Your task to perform on an android device: turn off priority inbox in the gmail app Image 0: 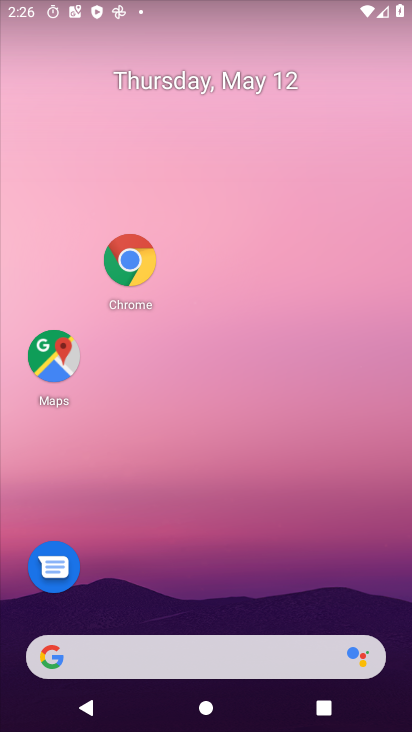
Step 0: drag from (189, 604) to (179, 348)
Your task to perform on an android device: turn off priority inbox in the gmail app Image 1: 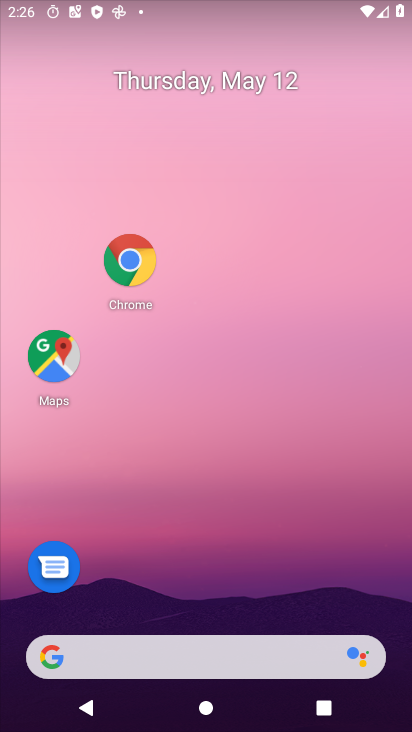
Step 1: drag from (161, 609) to (127, 246)
Your task to perform on an android device: turn off priority inbox in the gmail app Image 2: 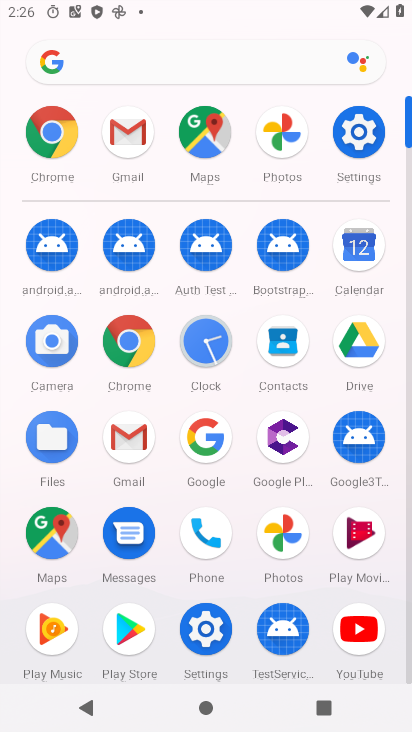
Step 2: click (119, 141)
Your task to perform on an android device: turn off priority inbox in the gmail app Image 3: 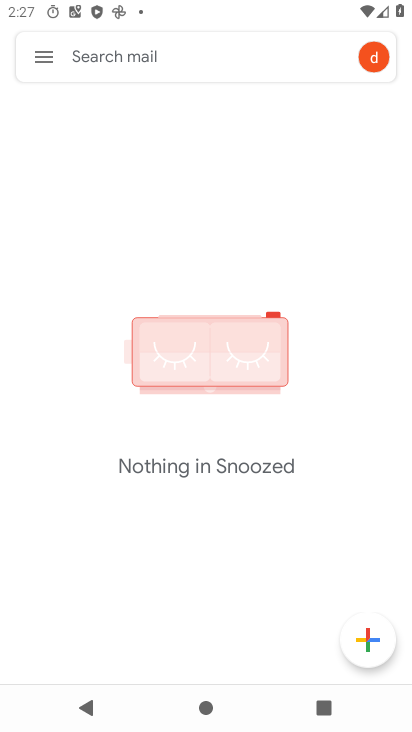
Step 3: click (50, 58)
Your task to perform on an android device: turn off priority inbox in the gmail app Image 4: 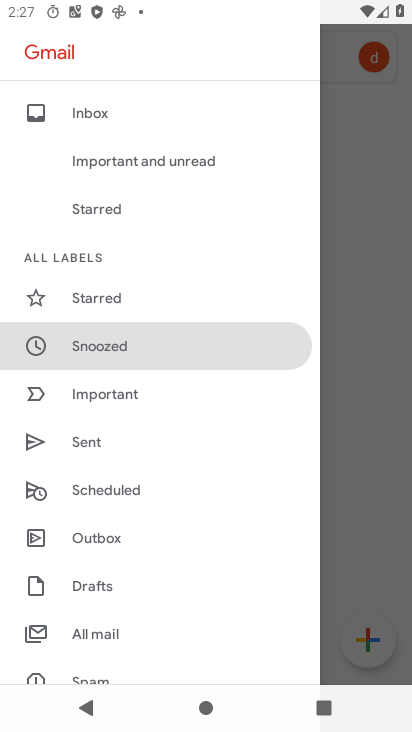
Step 4: drag from (98, 678) to (104, 451)
Your task to perform on an android device: turn off priority inbox in the gmail app Image 5: 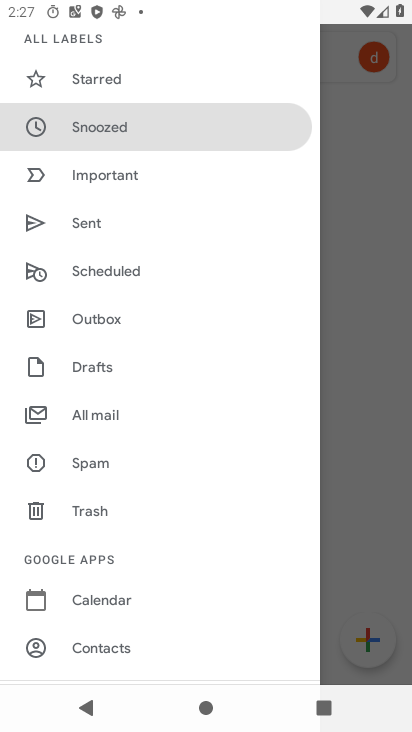
Step 5: drag from (115, 655) to (113, 352)
Your task to perform on an android device: turn off priority inbox in the gmail app Image 6: 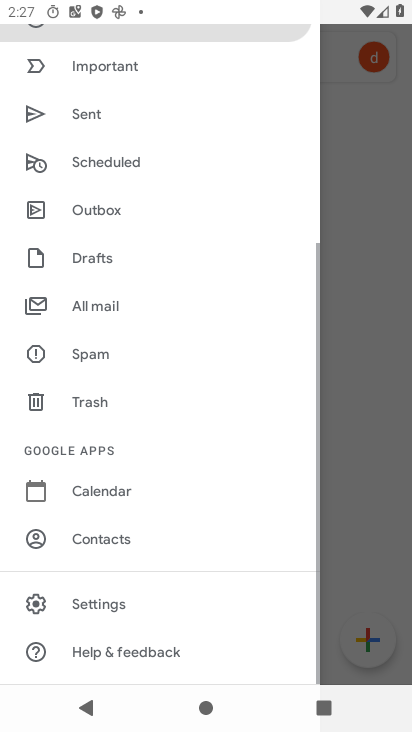
Step 6: click (105, 601)
Your task to perform on an android device: turn off priority inbox in the gmail app Image 7: 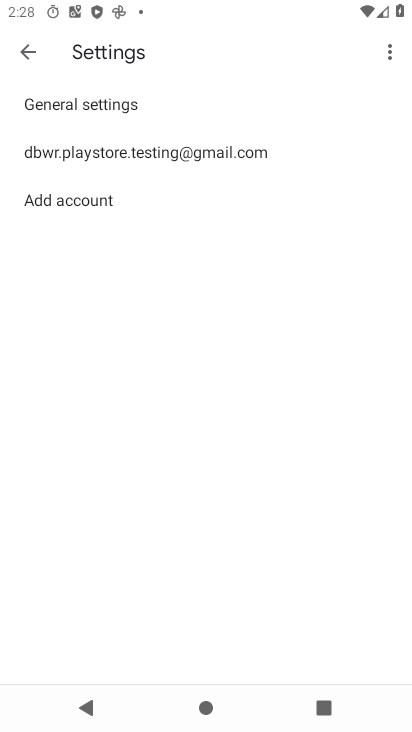
Step 7: click (112, 157)
Your task to perform on an android device: turn off priority inbox in the gmail app Image 8: 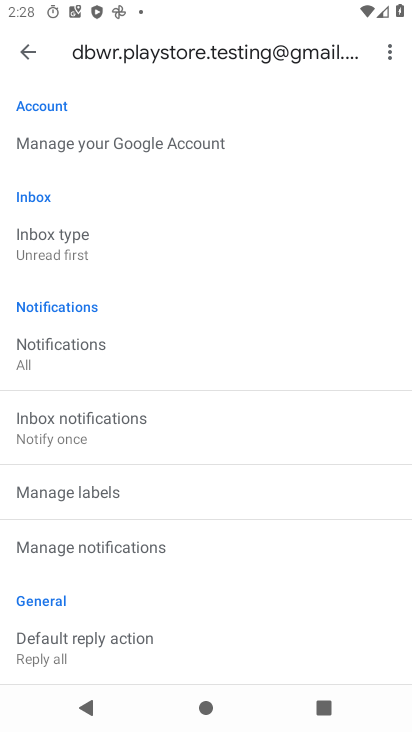
Step 8: click (50, 229)
Your task to perform on an android device: turn off priority inbox in the gmail app Image 9: 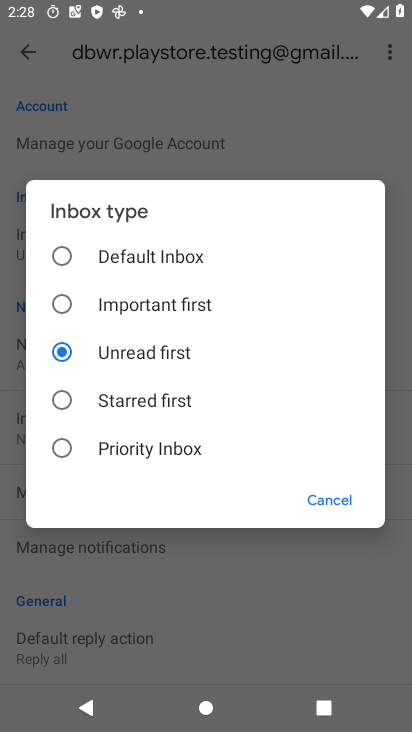
Step 9: task complete